Your task to perform on an android device: Open Android settings Image 0: 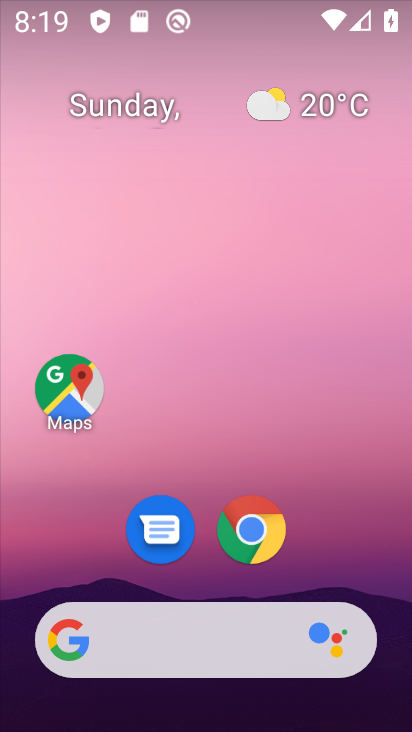
Step 0: drag from (214, 583) to (233, 76)
Your task to perform on an android device: Open Android settings Image 1: 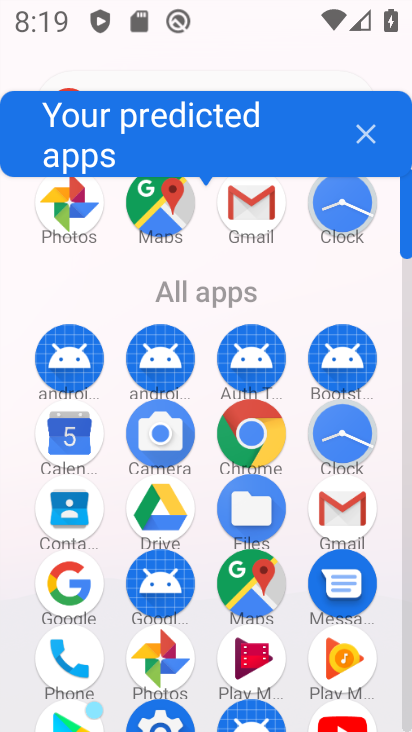
Step 1: drag from (199, 602) to (206, 181)
Your task to perform on an android device: Open Android settings Image 2: 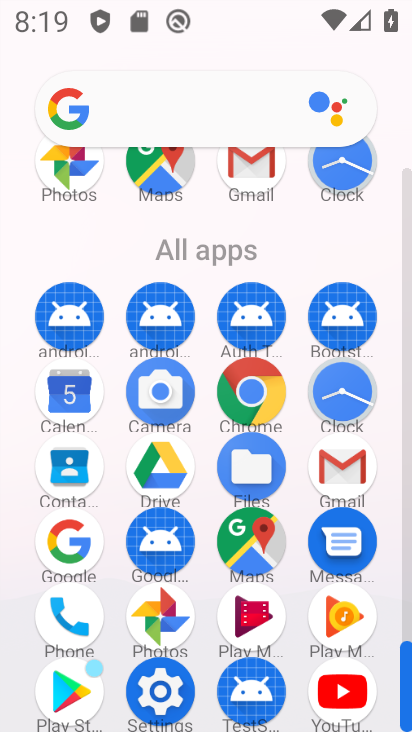
Step 2: click (155, 688)
Your task to perform on an android device: Open Android settings Image 3: 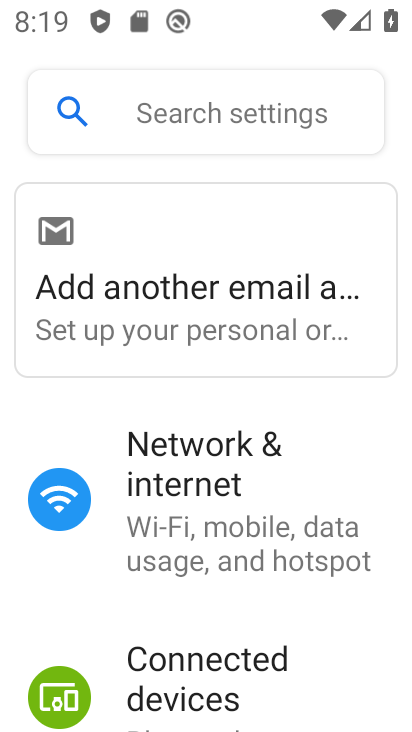
Step 3: drag from (225, 602) to (228, 0)
Your task to perform on an android device: Open Android settings Image 4: 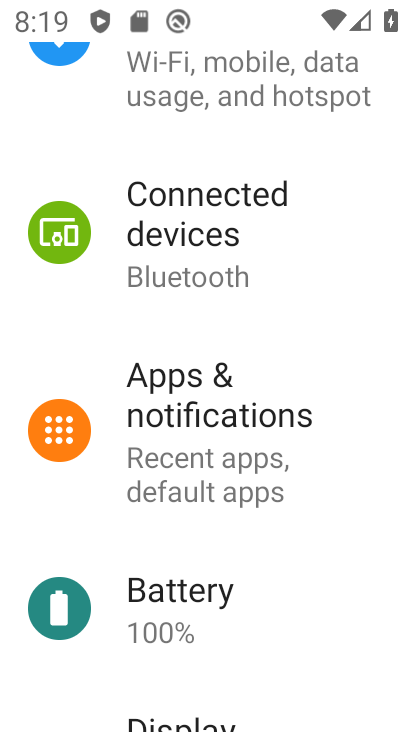
Step 4: drag from (228, 648) to (276, 37)
Your task to perform on an android device: Open Android settings Image 5: 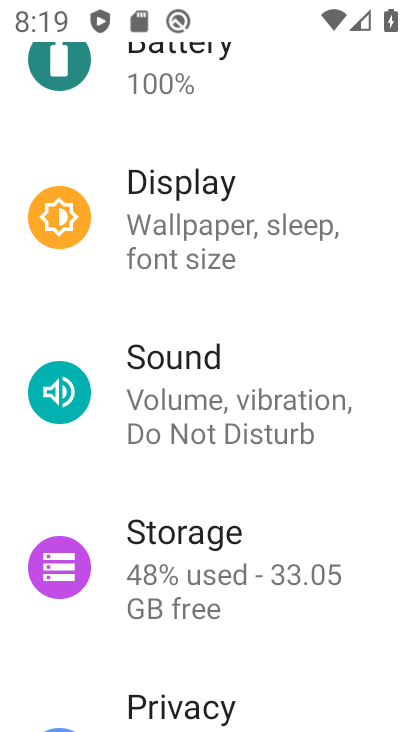
Step 5: drag from (251, 619) to (243, 1)
Your task to perform on an android device: Open Android settings Image 6: 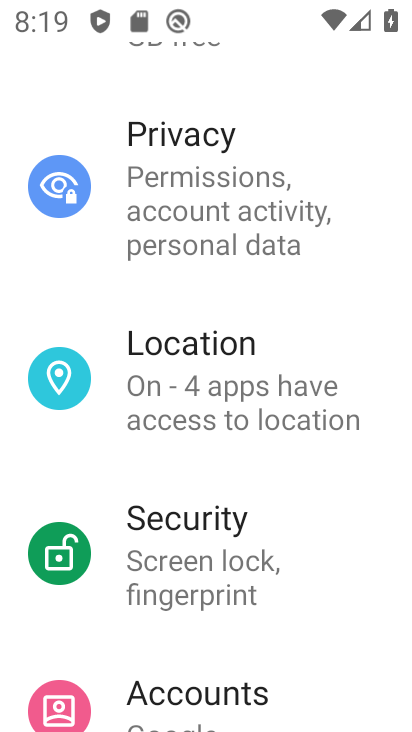
Step 6: drag from (230, 677) to (269, 87)
Your task to perform on an android device: Open Android settings Image 7: 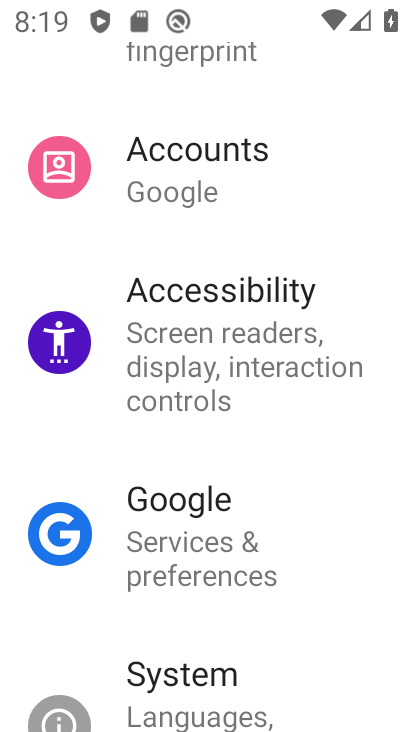
Step 7: drag from (267, 672) to (275, 67)
Your task to perform on an android device: Open Android settings Image 8: 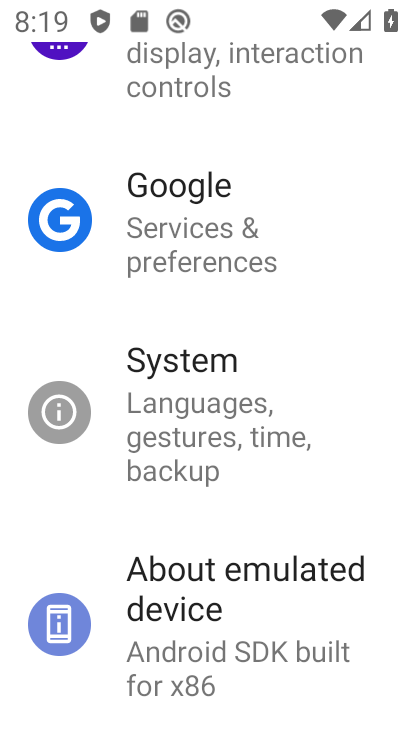
Step 8: click (202, 615)
Your task to perform on an android device: Open Android settings Image 9: 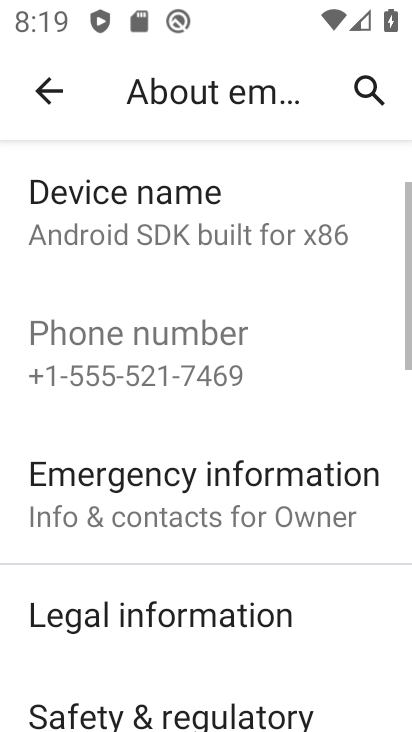
Step 9: task complete